Your task to perform on an android device: open sync settings in chrome Image 0: 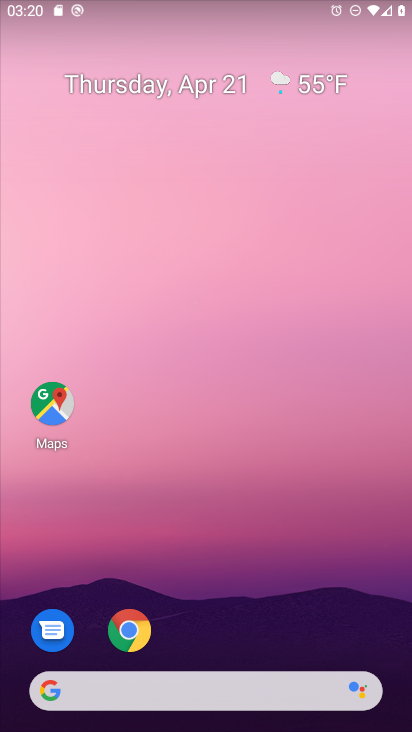
Step 0: drag from (219, 594) to (346, 207)
Your task to perform on an android device: open sync settings in chrome Image 1: 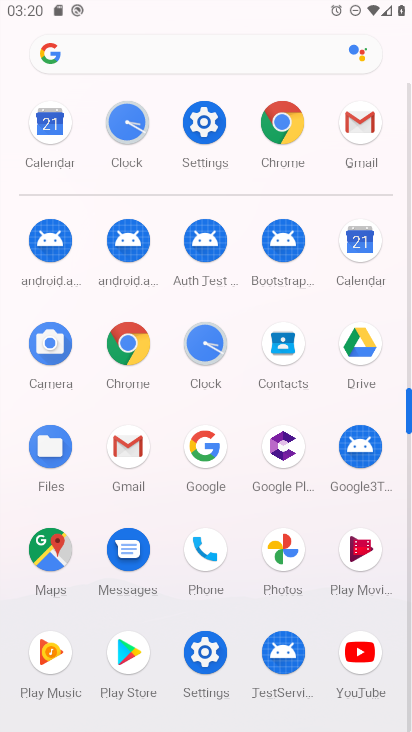
Step 1: click (292, 152)
Your task to perform on an android device: open sync settings in chrome Image 2: 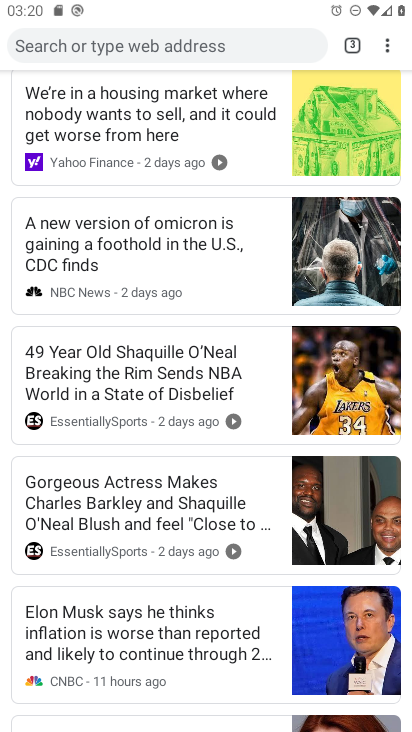
Step 2: drag from (183, 121) to (230, 731)
Your task to perform on an android device: open sync settings in chrome Image 3: 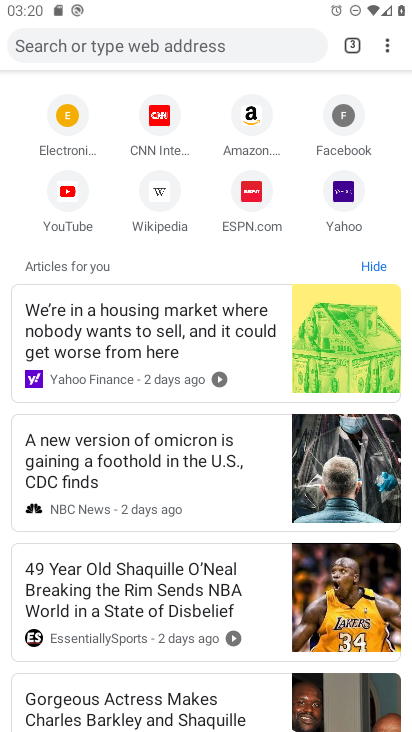
Step 3: drag from (212, 181) to (212, 582)
Your task to perform on an android device: open sync settings in chrome Image 4: 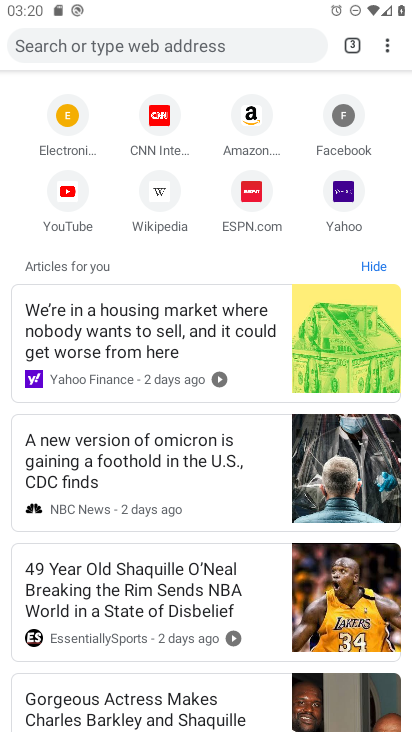
Step 4: click (389, 33)
Your task to perform on an android device: open sync settings in chrome Image 5: 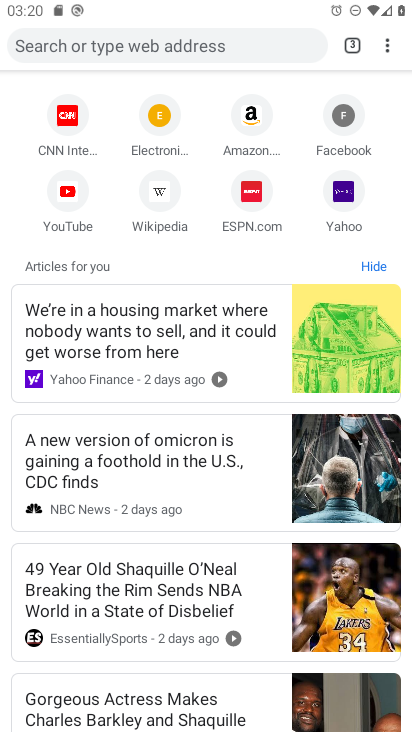
Step 5: click (388, 43)
Your task to perform on an android device: open sync settings in chrome Image 6: 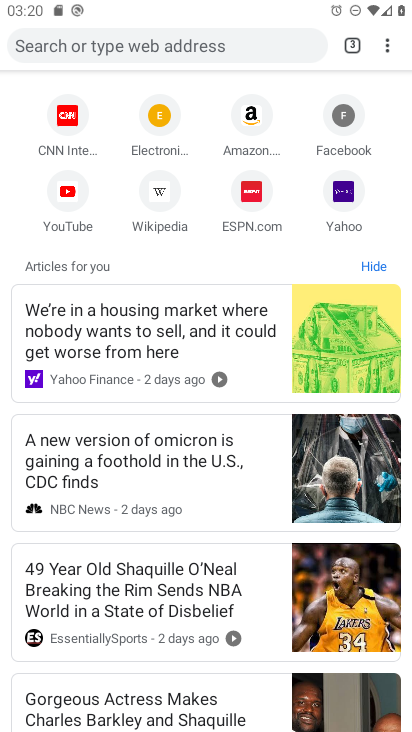
Step 6: click (376, 57)
Your task to perform on an android device: open sync settings in chrome Image 7: 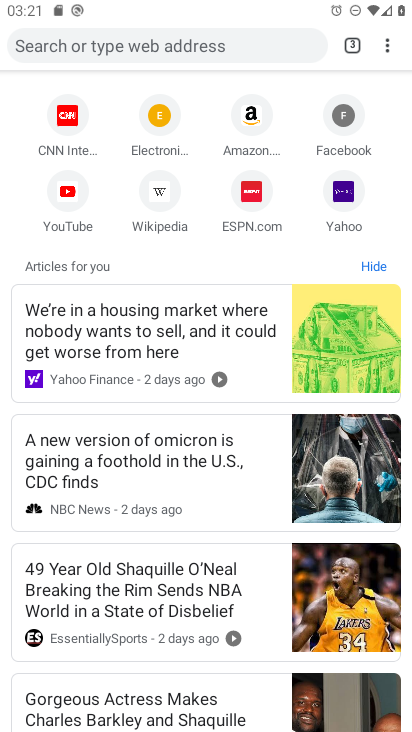
Step 7: click (387, 47)
Your task to perform on an android device: open sync settings in chrome Image 8: 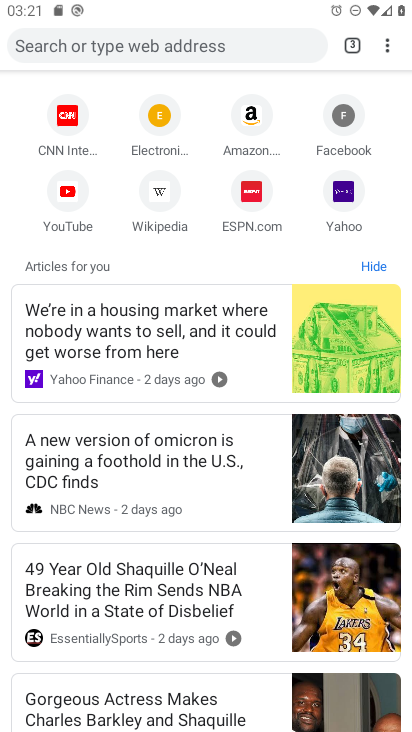
Step 8: click (377, 43)
Your task to perform on an android device: open sync settings in chrome Image 9: 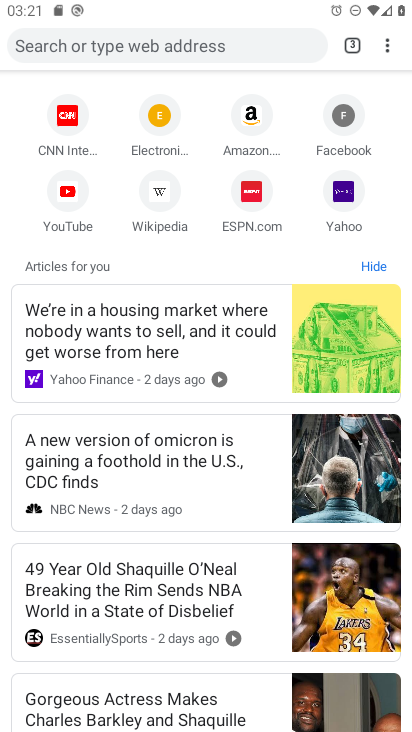
Step 9: click (386, 40)
Your task to perform on an android device: open sync settings in chrome Image 10: 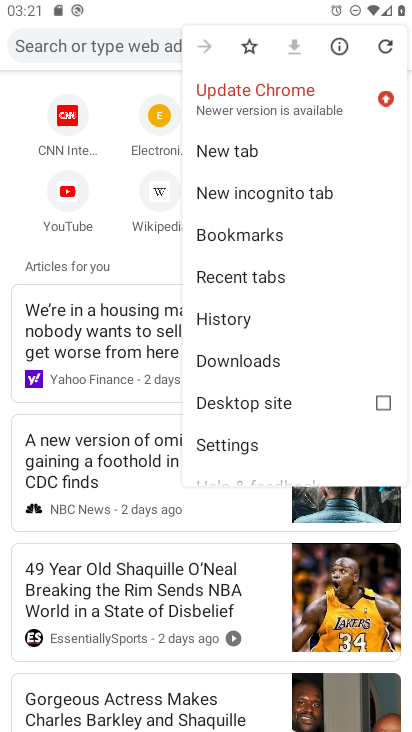
Step 10: click (258, 457)
Your task to perform on an android device: open sync settings in chrome Image 11: 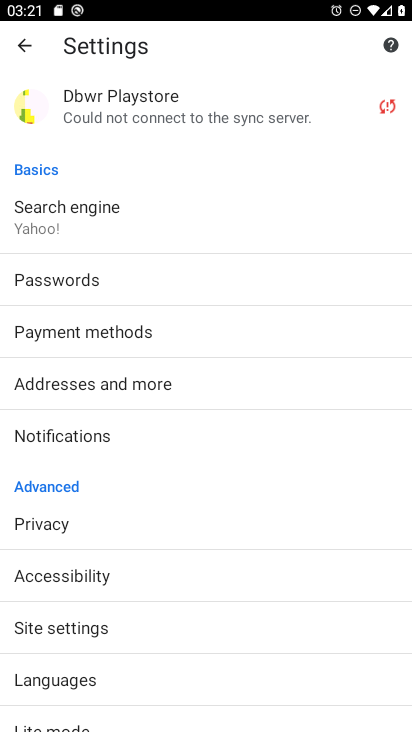
Step 11: drag from (228, 557) to (270, 256)
Your task to perform on an android device: open sync settings in chrome Image 12: 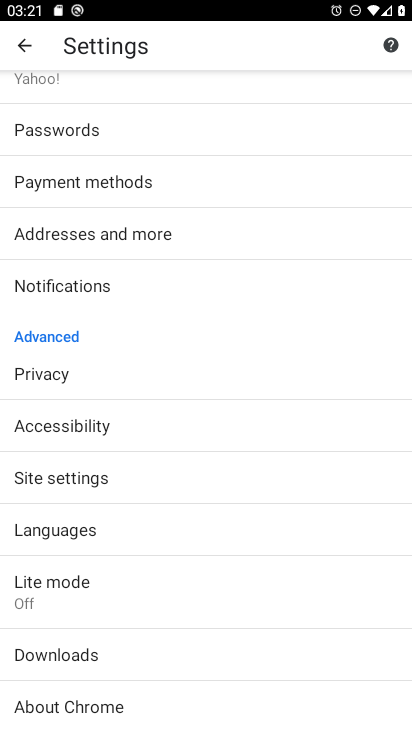
Step 12: click (194, 466)
Your task to perform on an android device: open sync settings in chrome Image 13: 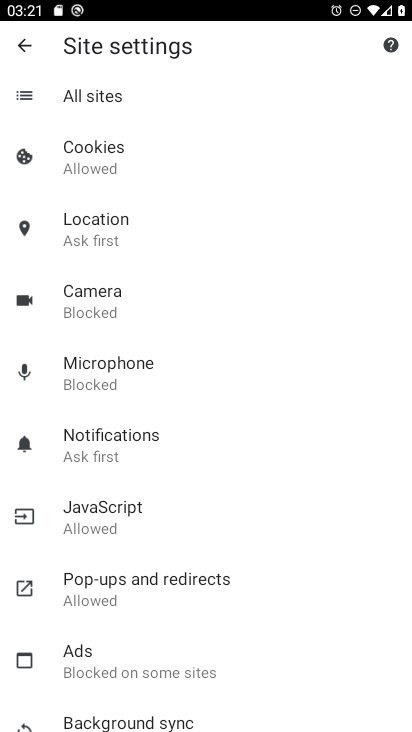
Step 13: drag from (201, 452) to (188, 625)
Your task to perform on an android device: open sync settings in chrome Image 14: 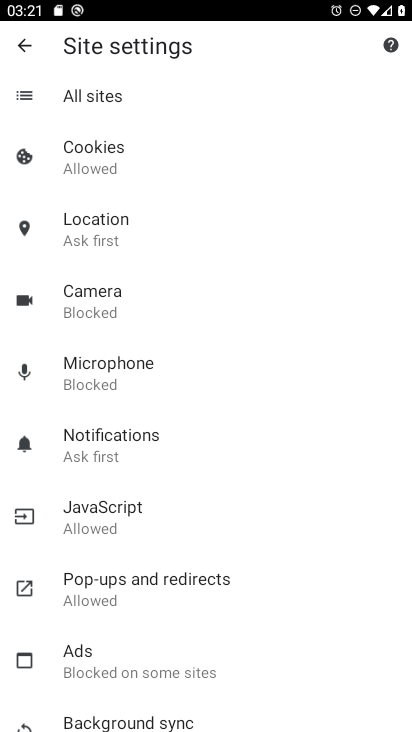
Step 14: click (36, 52)
Your task to perform on an android device: open sync settings in chrome Image 15: 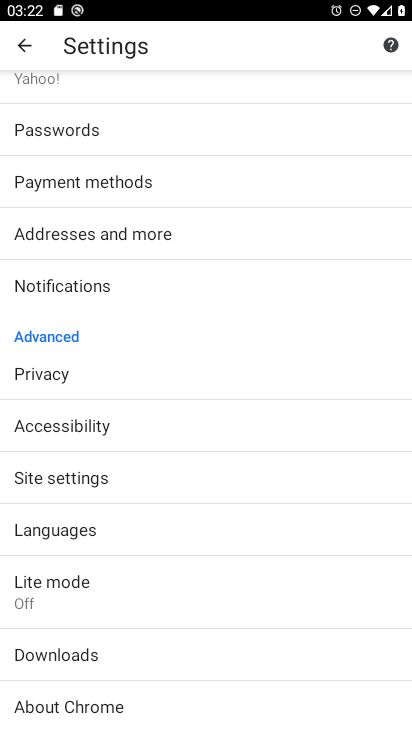
Step 15: drag from (105, 361) to (115, 697)
Your task to perform on an android device: open sync settings in chrome Image 16: 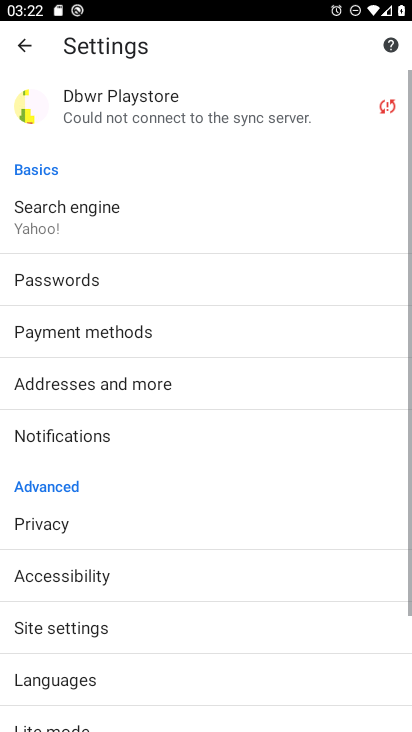
Step 16: click (222, 91)
Your task to perform on an android device: open sync settings in chrome Image 17: 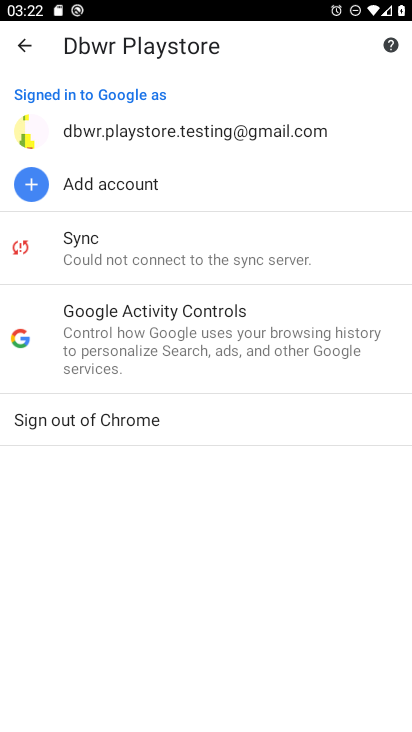
Step 17: task complete